Your task to perform on an android device: Search for sushi restaurants on Maps Image 0: 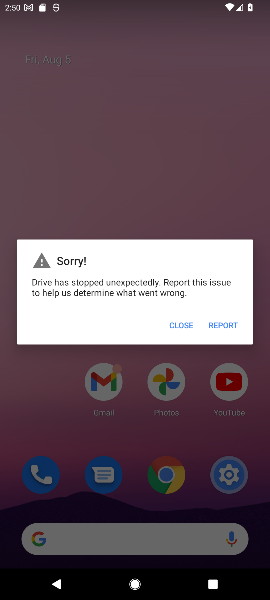
Step 0: press home button
Your task to perform on an android device: Search for sushi restaurants on Maps Image 1: 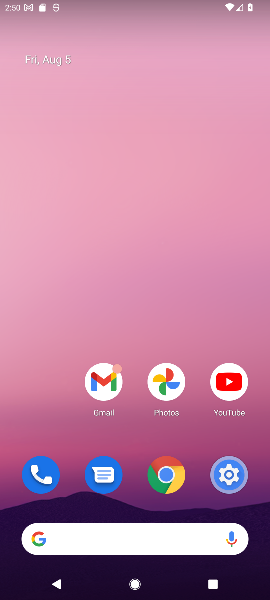
Step 1: drag from (249, 578) to (206, 4)
Your task to perform on an android device: Search for sushi restaurants on Maps Image 2: 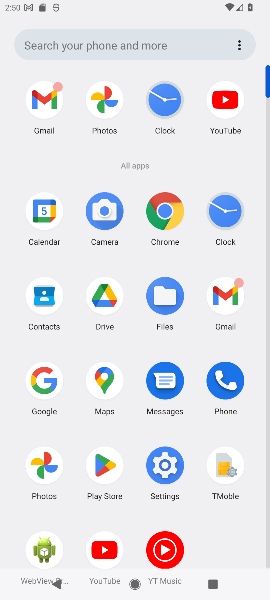
Step 2: click (101, 380)
Your task to perform on an android device: Search for sushi restaurants on Maps Image 3: 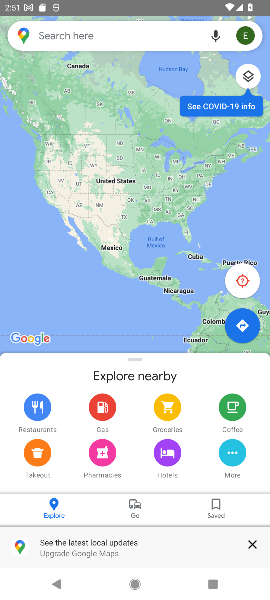
Step 3: click (99, 36)
Your task to perform on an android device: Search for sushi restaurants on Maps Image 4: 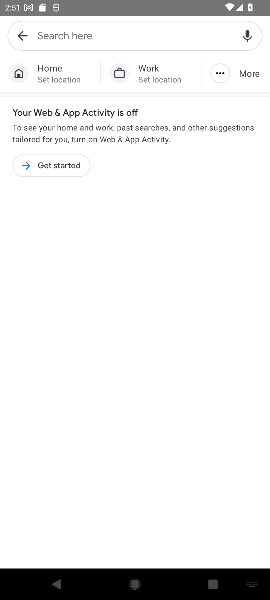
Step 4: type "sushi restaurants "
Your task to perform on an android device: Search for sushi restaurants on Maps Image 5: 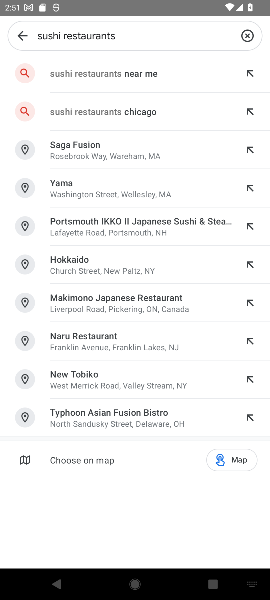
Step 5: click (74, 78)
Your task to perform on an android device: Search for sushi restaurants on Maps Image 6: 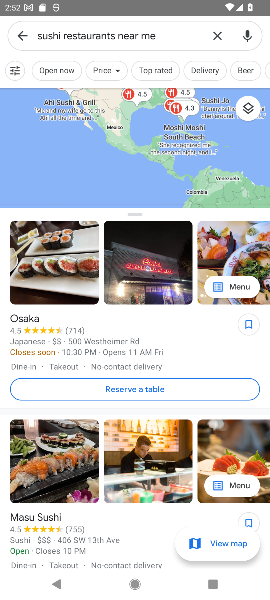
Step 6: task complete